Your task to perform on an android device: Go to accessibility settings Image 0: 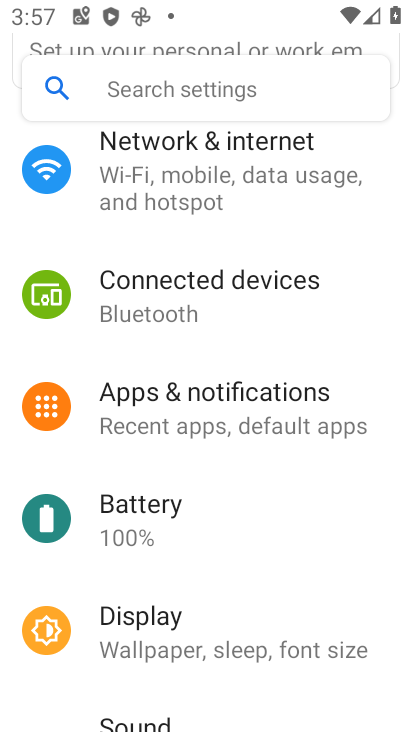
Step 0: drag from (363, 653) to (293, 202)
Your task to perform on an android device: Go to accessibility settings Image 1: 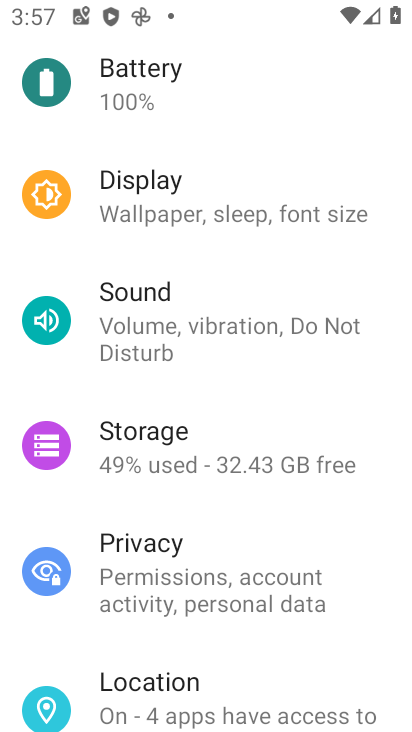
Step 1: drag from (309, 606) to (239, 216)
Your task to perform on an android device: Go to accessibility settings Image 2: 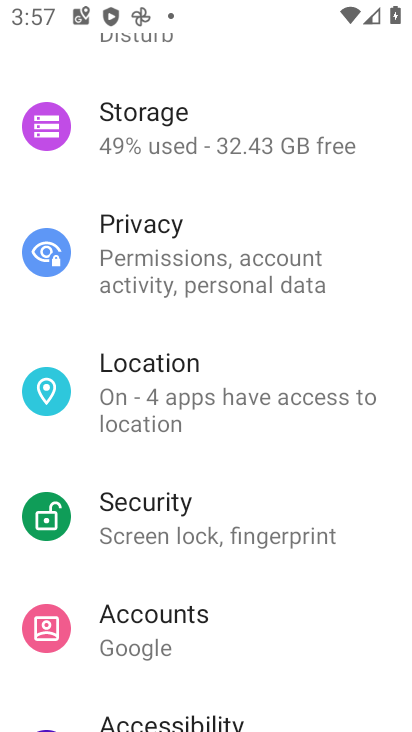
Step 2: drag from (313, 658) to (248, 225)
Your task to perform on an android device: Go to accessibility settings Image 3: 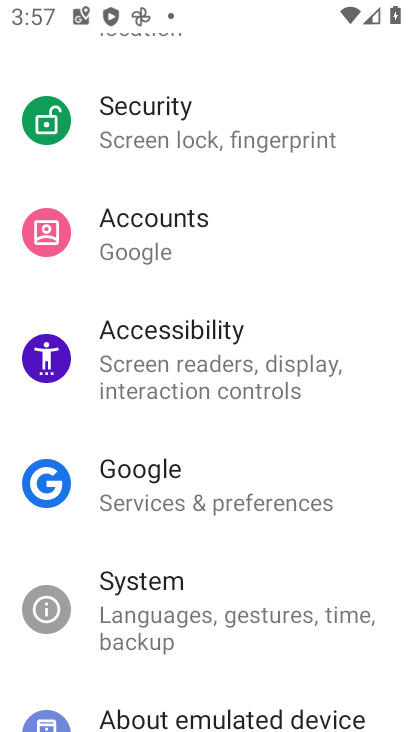
Step 3: click (127, 331)
Your task to perform on an android device: Go to accessibility settings Image 4: 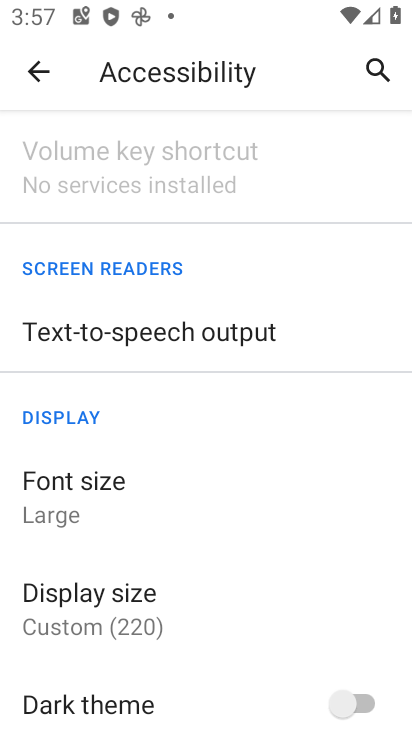
Step 4: task complete